Your task to perform on an android device: What's the weather going to be tomorrow? Image 0: 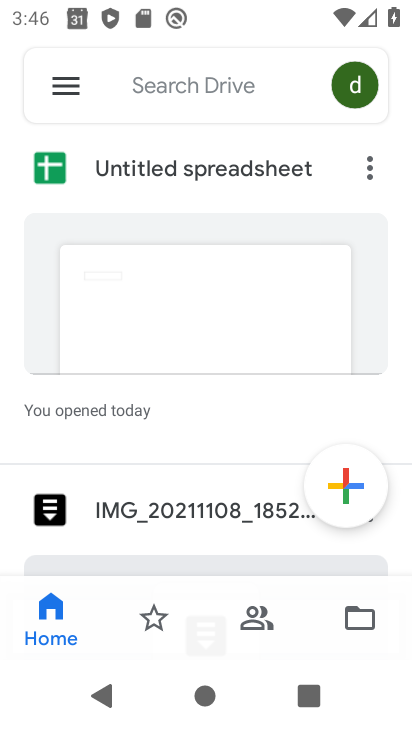
Step 0: press back button
Your task to perform on an android device: What's the weather going to be tomorrow? Image 1: 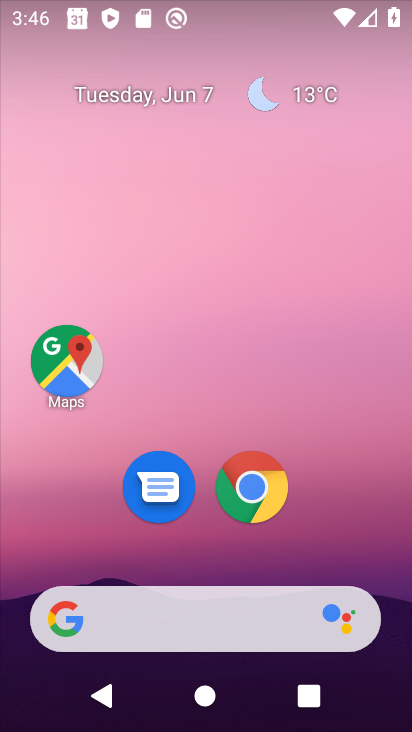
Step 1: click (288, 96)
Your task to perform on an android device: What's the weather going to be tomorrow? Image 2: 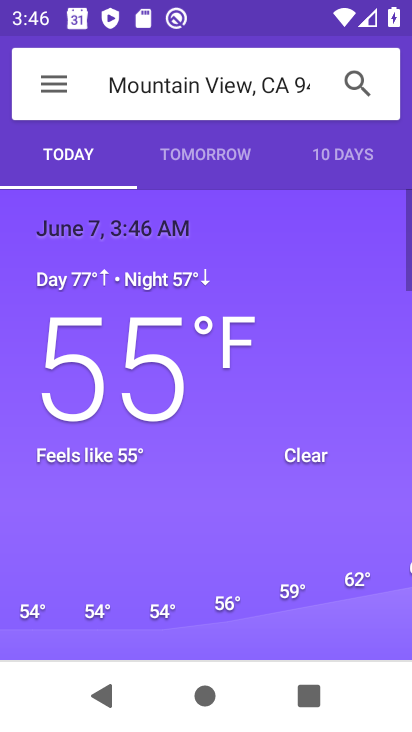
Step 2: click (200, 161)
Your task to perform on an android device: What's the weather going to be tomorrow? Image 3: 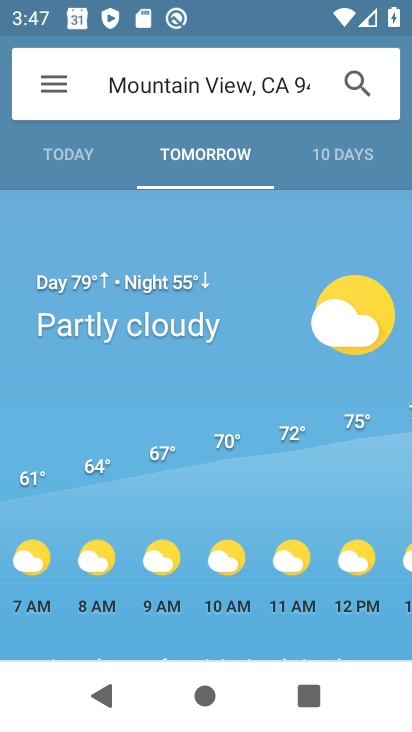
Step 3: task complete